Your task to perform on an android device: see tabs open on other devices in the chrome app Image 0: 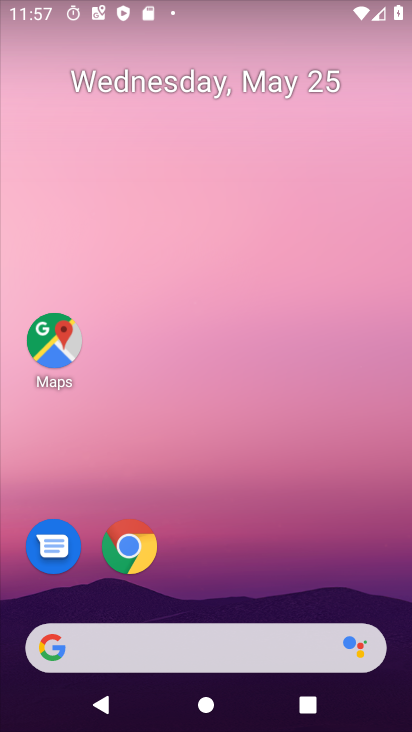
Step 0: click (142, 558)
Your task to perform on an android device: see tabs open on other devices in the chrome app Image 1: 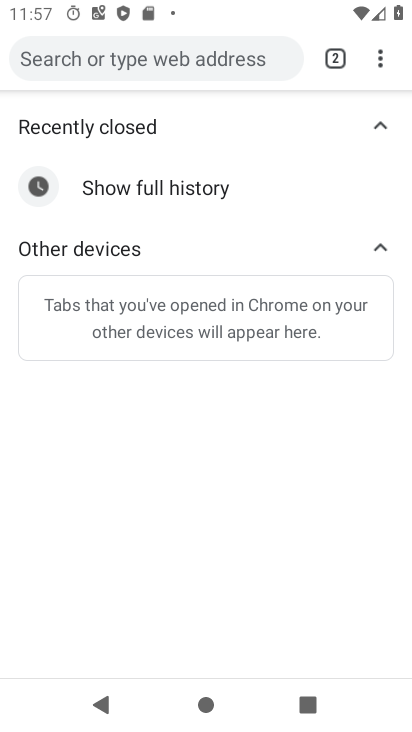
Step 1: task complete